Your task to perform on an android device: Open my contact list Image 0: 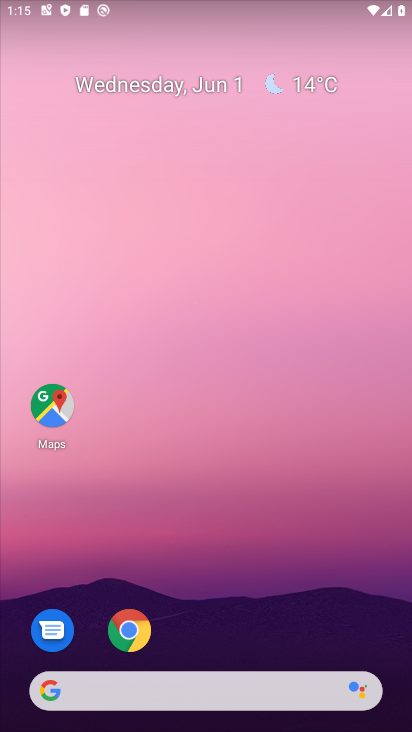
Step 0: drag from (213, 642) to (213, 153)
Your task to perform on an android device: Open my contact list Image 1: 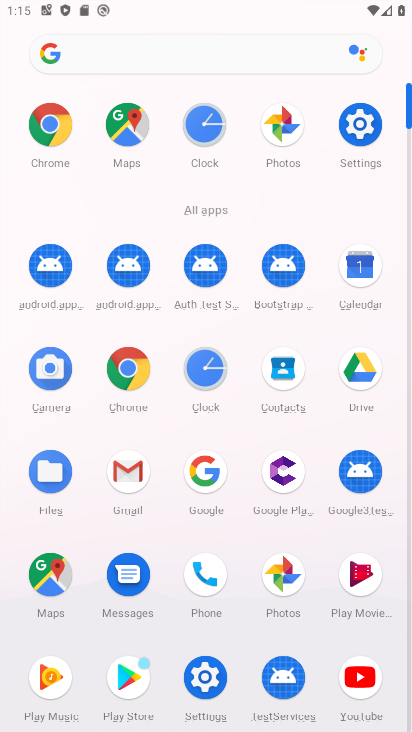
Step 1: click (281, 358)
Your task to perform on an android device: Open my contact list Image 2: 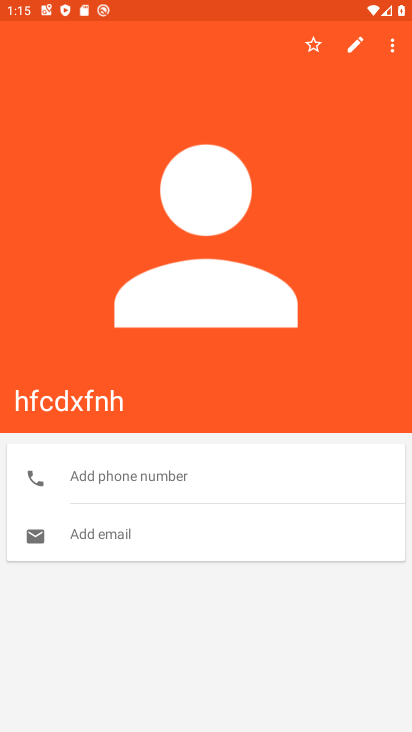
Step 2: task complete